Your task to perform on an android device: turn off airplane mode Image 0: 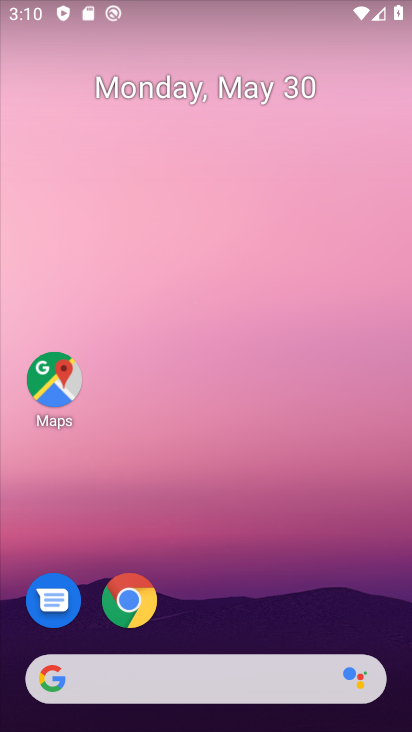
Step 0: drag from (299, 607) to (226, 188)
Your task to perform on an android device: turn off airplane mode Image 1: 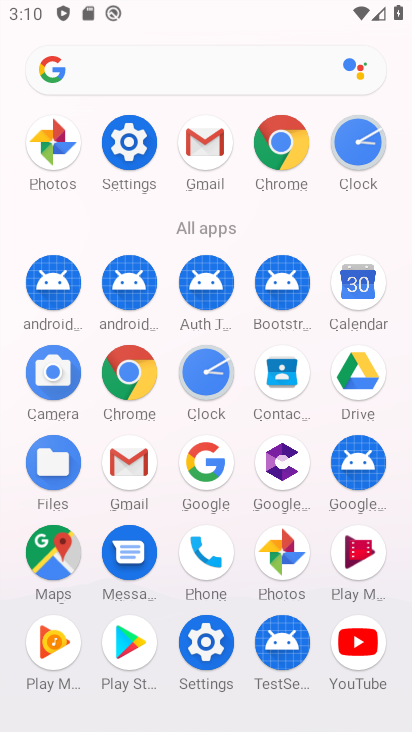
Step 1: click (146, 135)
Your task to perform on an android device: turn off airplane mode Image 2: 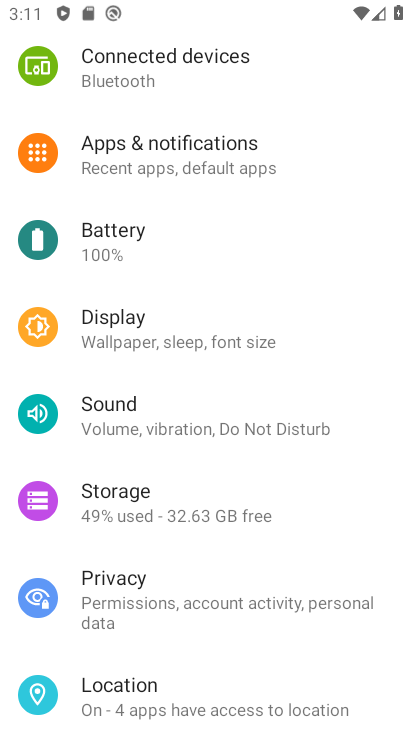
Step 2: drag from (229, 188) to (248, 469)
Your task to perform on an android device: turn off airplane mode Image 3: 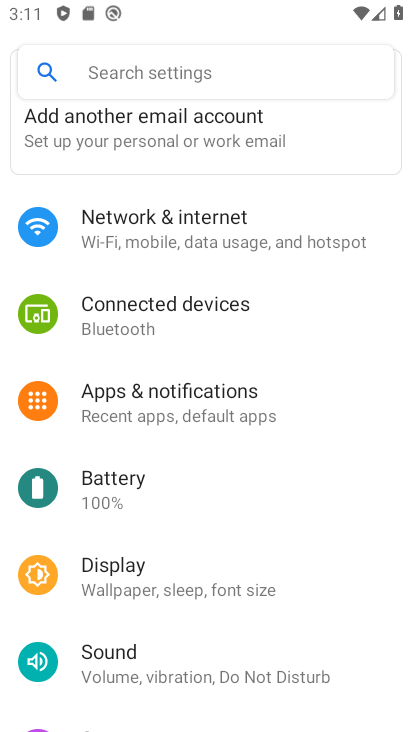
Step 3: click (236, 246)
Your task to perform on an android device: turn off airplane mode Image 4: 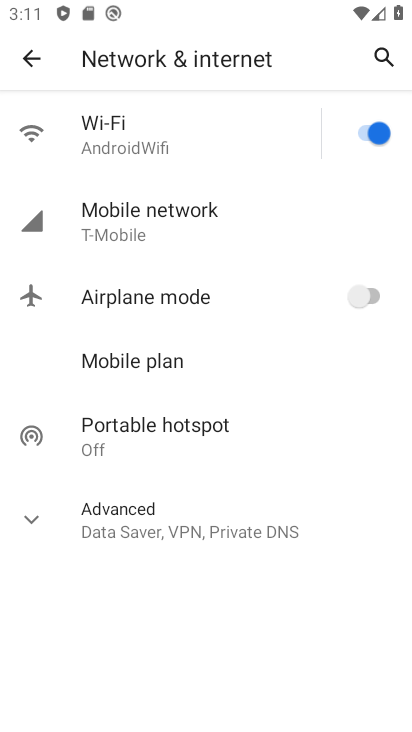
Step 4: task complete